Your task to perform on an android device: open app "Adobe Express: Graphic Design" (install if not already installed), go to login, and select forgot password Image 0: 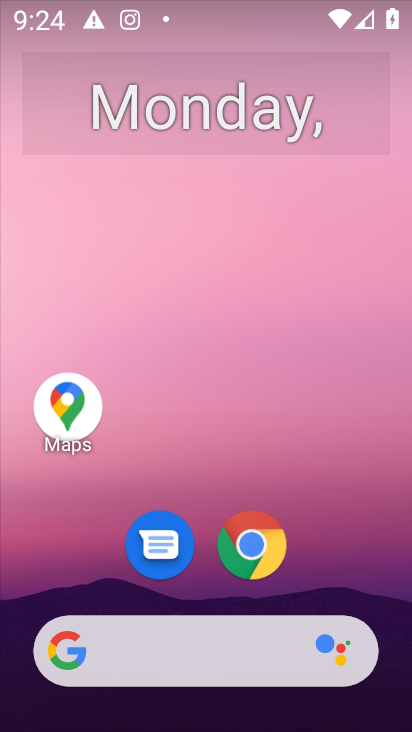
Step 0: press home button
Your task to perform on an android device: open app "Adobe Express: Graphic Design" (install if not already installed), go to login, and select forgot password Image 1: 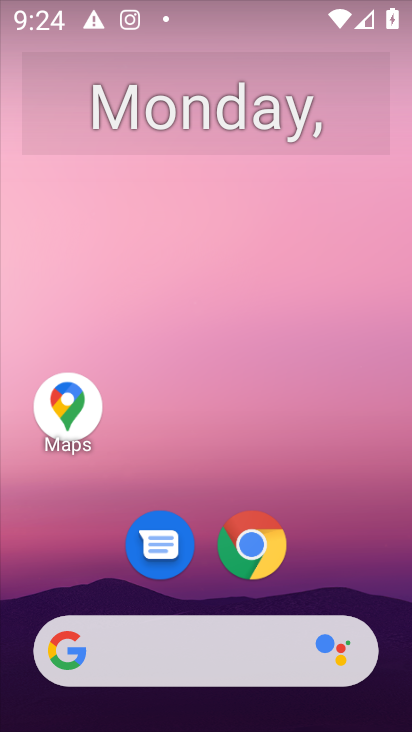
Step 1: drag from (368, 592) to (331, 113)
Your task to perform on an android device: open app "Adobe Express: Graphic Design" (install if not already installed), go to login, and select forgot password Image 2: 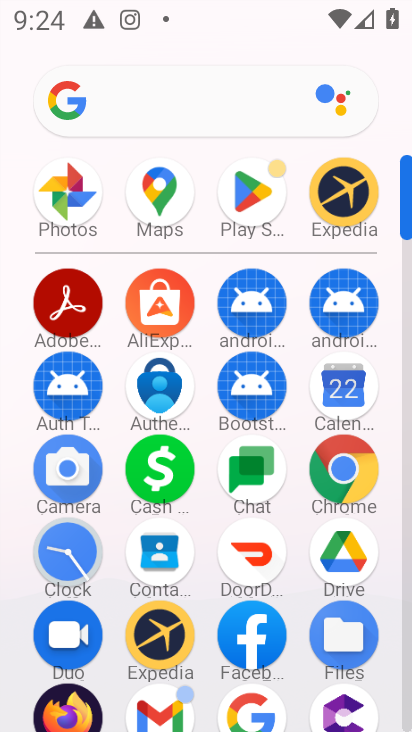
Step 2: click (249, 189)
Your task to perform on an android device: open app "Adobe Express: Graphic Design" (install if not already installed), go to login, and select forgot password Image 3: 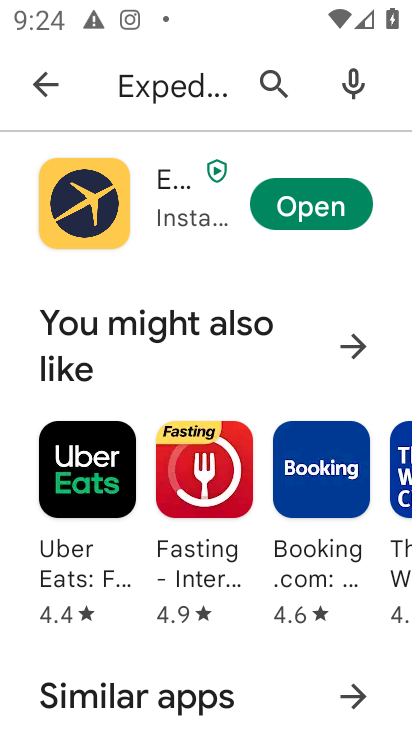
Step 3: press back button
Your task to perform on an android device: open app "Adobe Express: Graphic Design" (install if not already installed), go to login, and select forgot password Image 4: 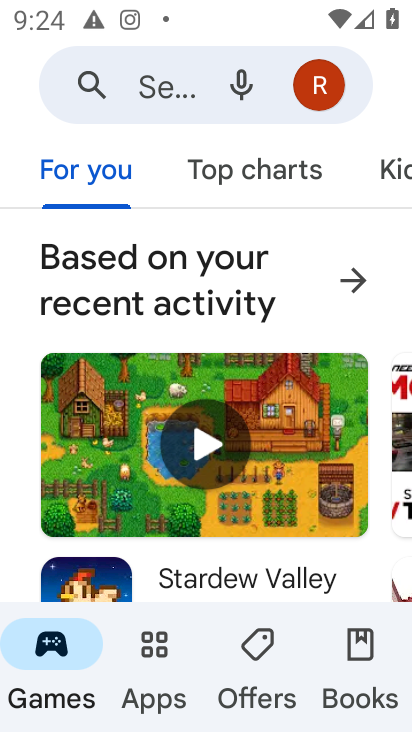
Step 4: click (180, 90)
Your task to perform on an android device: open app "Adobe Express: Graphic Design" (install if not already installed), go to login, and select forgot password Image 5: 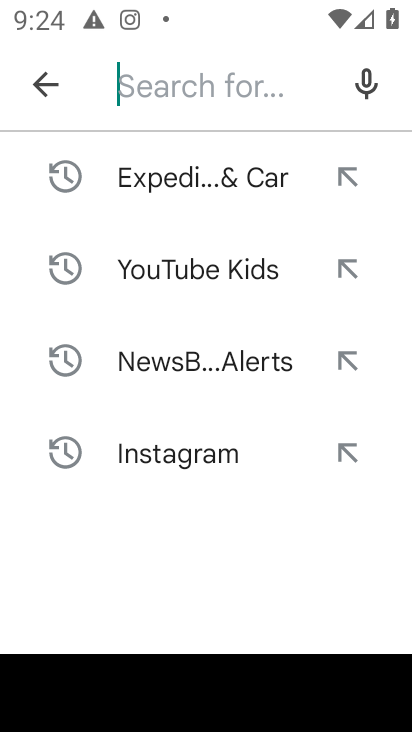
Step 5: type "Adobe Express: Graphic Design"
Your task to perform on an android device: open app "Adobe Express: Graphic Design" (install if not already installed), go to login, and select forgot password Image 6: 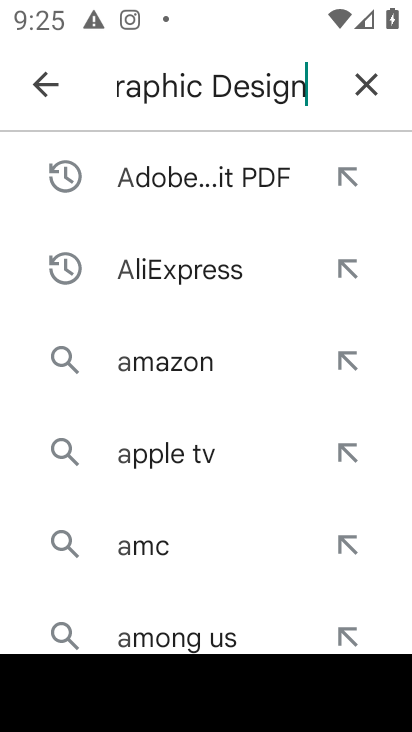
Step 6: press enter
Your task to perform on an android device: open app "Adobe Express: Graphic Design" (install if not already installed), go to login, and select forgot password Image 7: 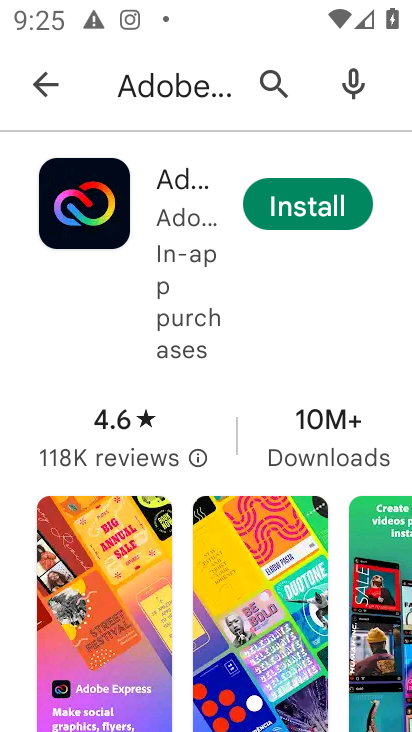
Step 7: click (319, 211)
Your task to perform on an android device: open app "Adobe Express: Graphic Design" (install if not already installed), go to login, and select forgot password Image 8: 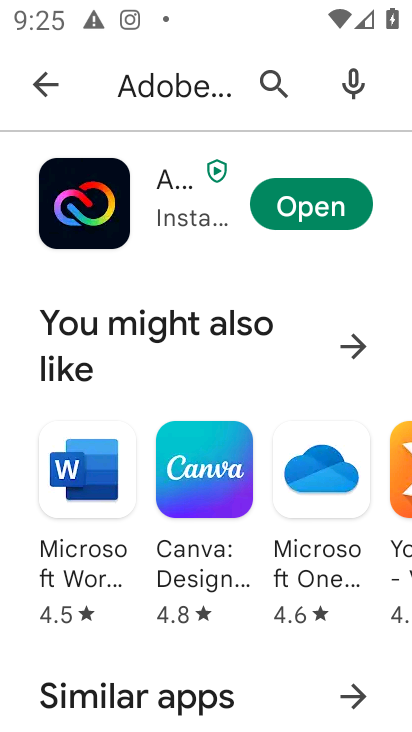
Step 8: click (331, 213)
Your task to perform on an android device: open app "Adobe Express: Graphic Design" (install if not already installed), go to login, and select forgot password Image 9: 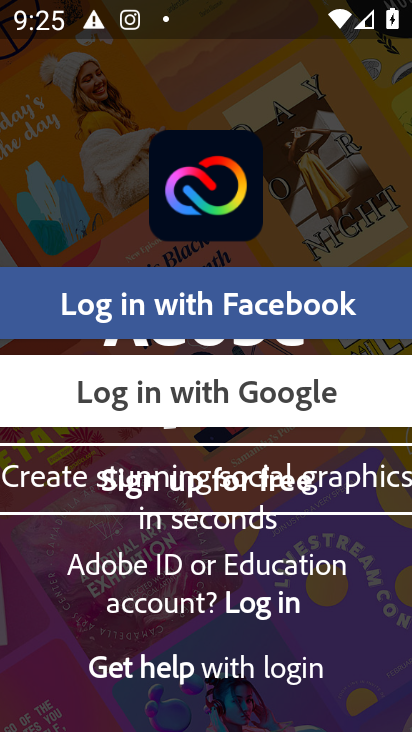
Step 9: click (266, 604)
Your task to perform on an android device: open app "Adobe Express: Graphic Design" (install if not already installed), go to login, and select forgot password Image 10: 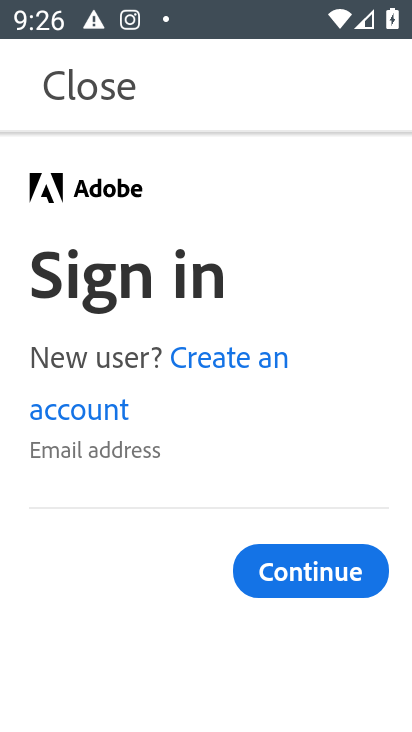
Step 10: task complete